Your task to perform on an android device: turn off picture-in-picture Image 0: 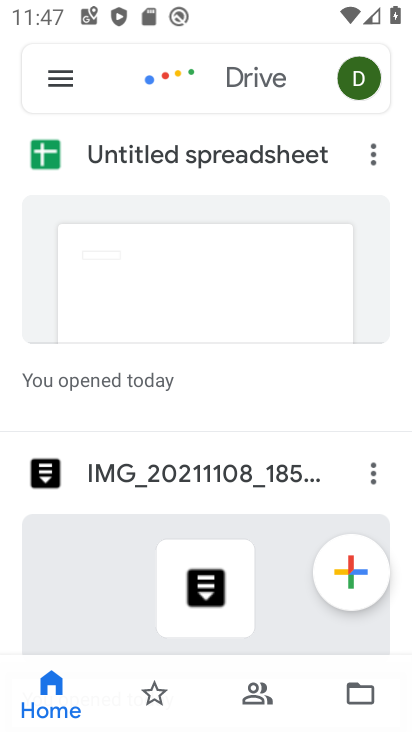
Step 0: press home button
Your task to perform on an android device: turn off picture-in-picture Image 1: 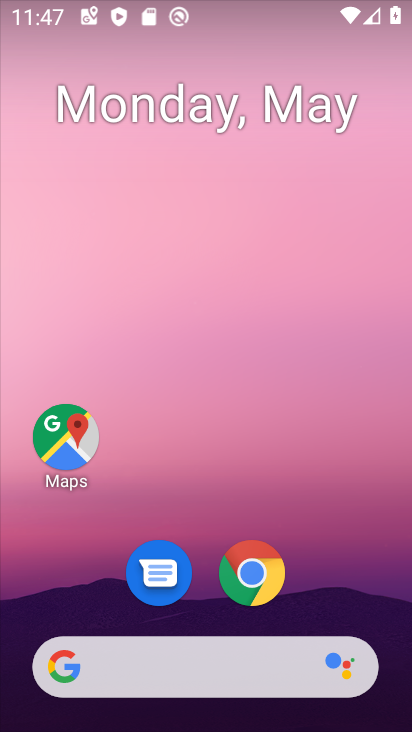
Step 1: drag from (266, 661) to (305, 75)
Your task to perform on an android device: turn off picture-in-picture Image 2: 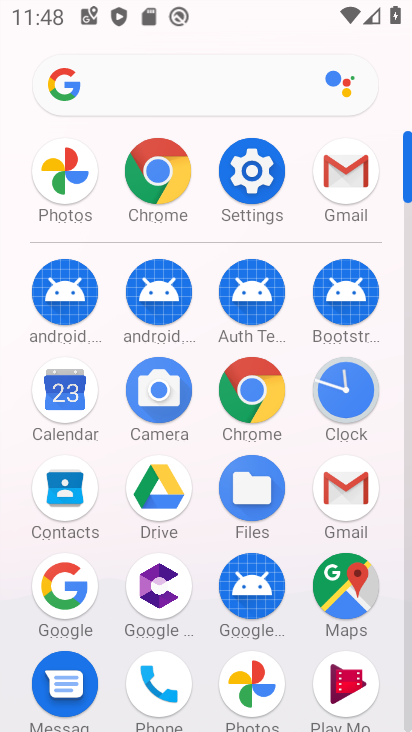
Step 2: click (266, 183)
Your task to perform on an android device: turn off picture-in-picture Image 3: 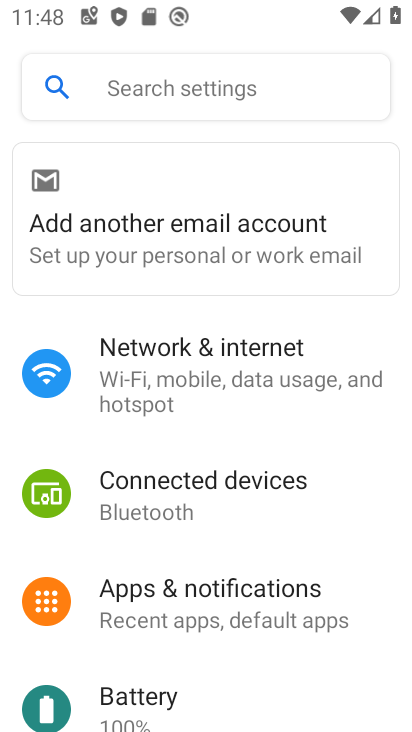
Step 3: drag from (175, 594) to (207, 295)
Your task to perform on an android device: turn off picture-in-picture Image 4: 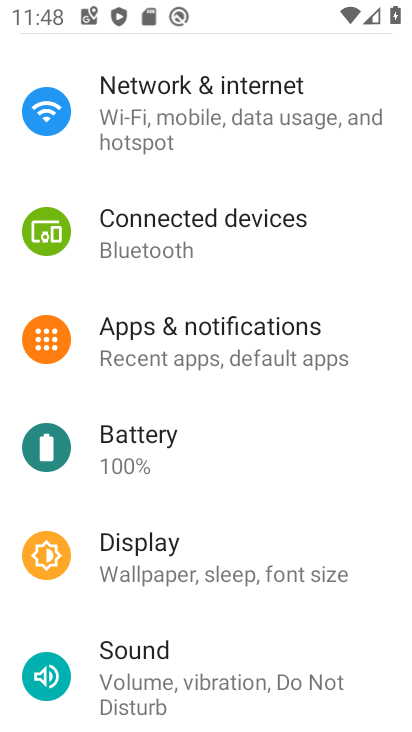
Step 4: click (281, 338)
Your task to perform on an android device: turn off picture-in-picture Image 5: 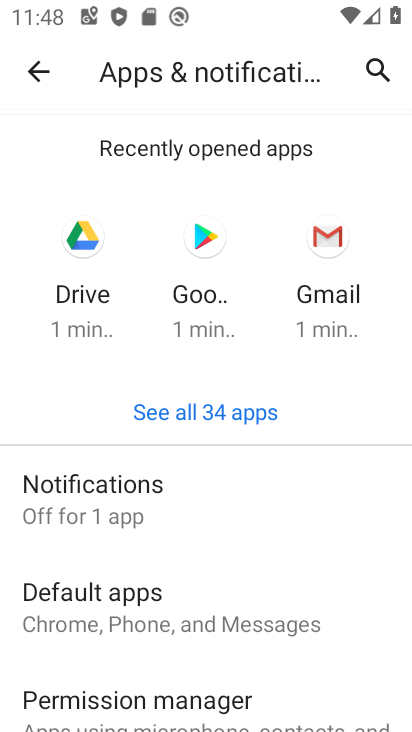
Step 5: drag from (181, 559) to (210, 275)
Your task to perform on an android device: turn off picture-in-picture Image 6: 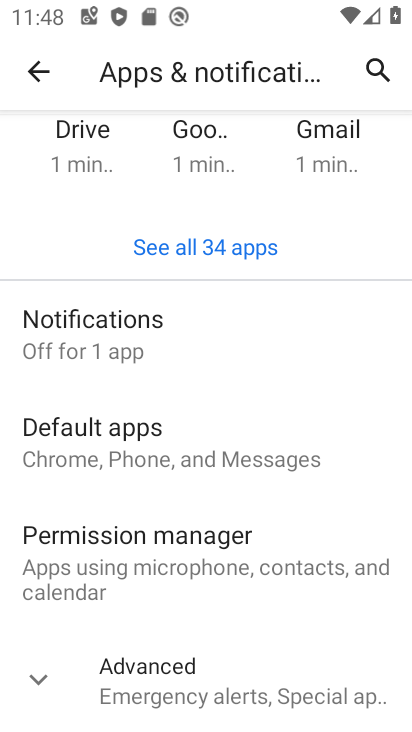
Step 6: drag from (184, 626) to (223, 275)
Your task to perform on an android device: turn off picture-in-picture Image 7: 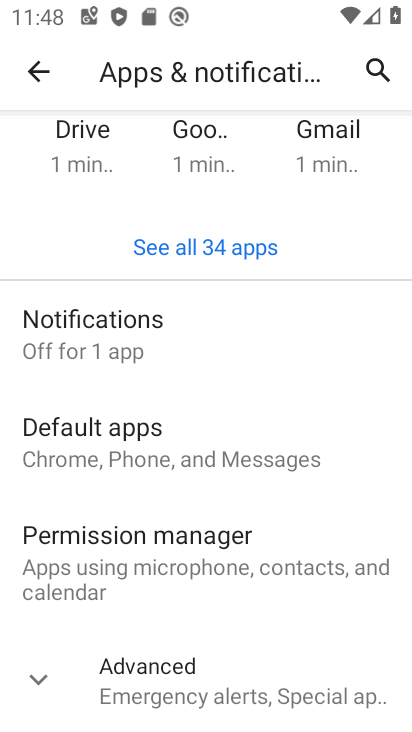
Step 7: click (214, 678)
Your task to perform on an android device: turn off picture-in-picture Image 8: 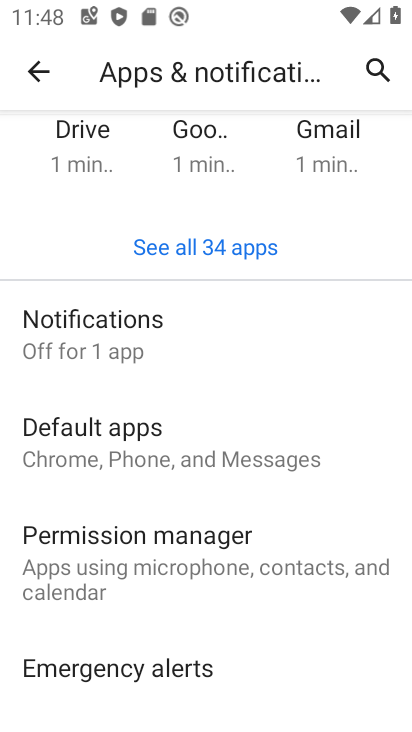
Step 8: drag from (197, 580) to (235, 180)
Your task to perform on an android device: turn off picture-in-picture Image 9: 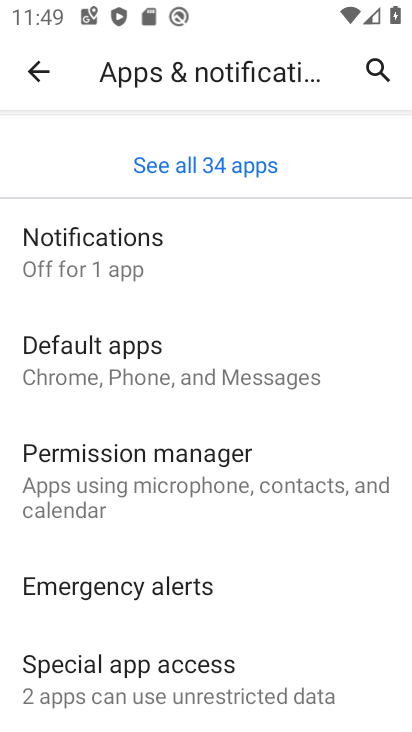
Step 9: click (221, 678)
Your task to perform on an android device: turn off picture-in-picture Image 10: 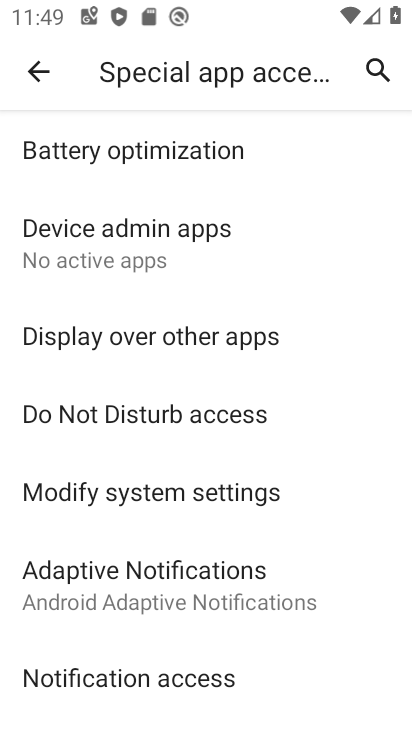
Step 10: drag from (210, 605) to (268, 229)
Your task to perform on an android device: turn off picture-in-picture Image 11: 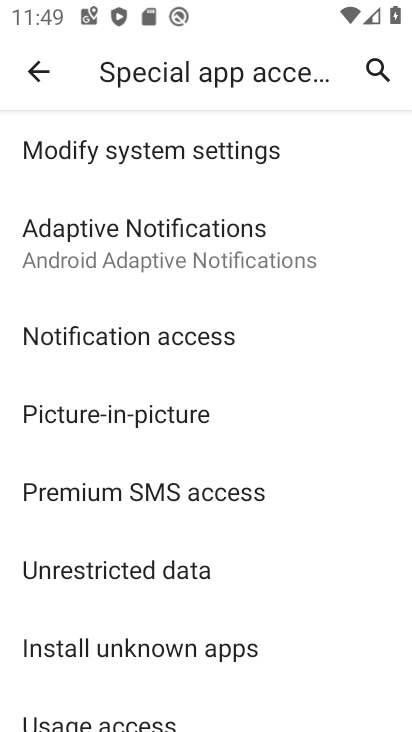
Step 11: click (195, 424)
Your task to perform on an android device: turn off picture-in-picture Image 12: 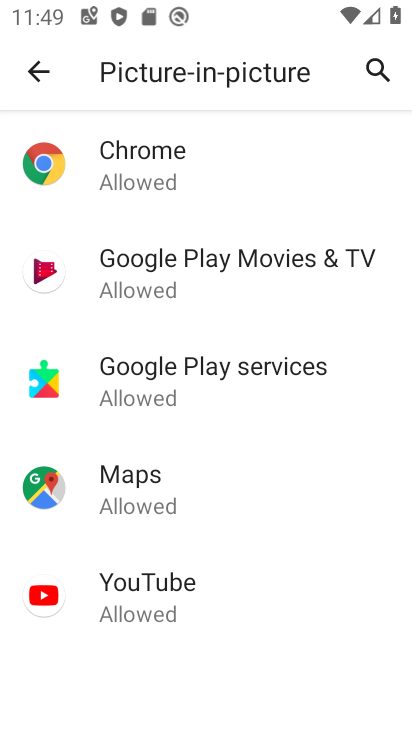
Step 12: click (254, 167)
Your task to perform on an android device: turn off picture-in-picture Image 13: 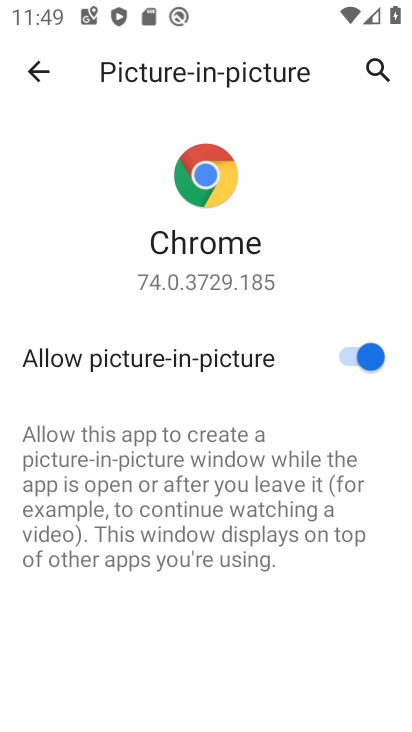
Step 13: click (348, 364)
Your task to perform on an android device: turn off picture-in-picture Image 14: 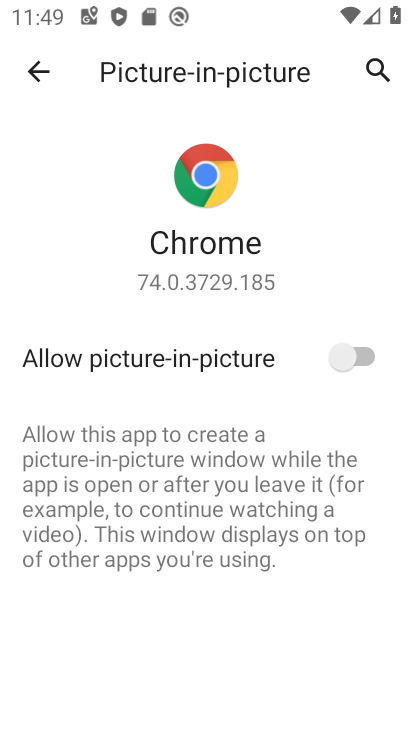
Step 14: task complete